Your task to perform on an android device: Go to Maps Image 0: 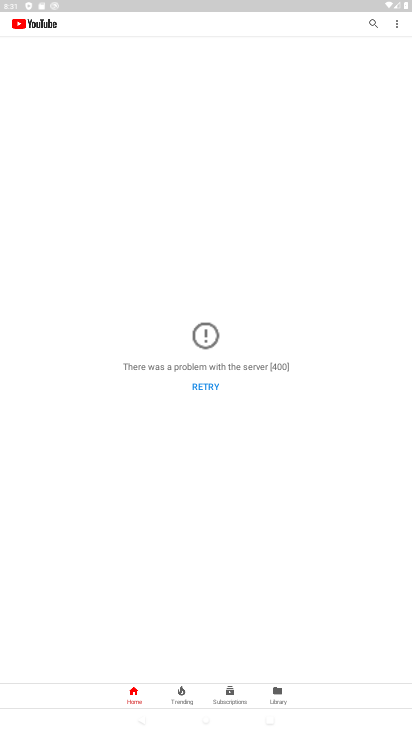
Step 0: press back button
Your task to perform on an android device: Go to Maps Image 1: 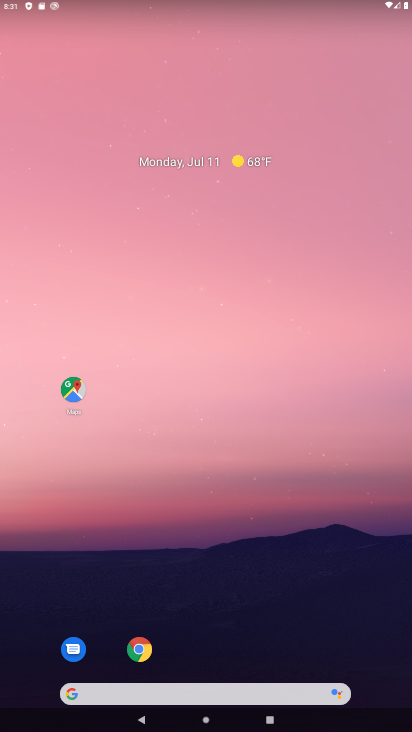
Step 1: drag from (239, 657) to (231, 194)
Your task to perform on an android device: Go to Maps Image 2: 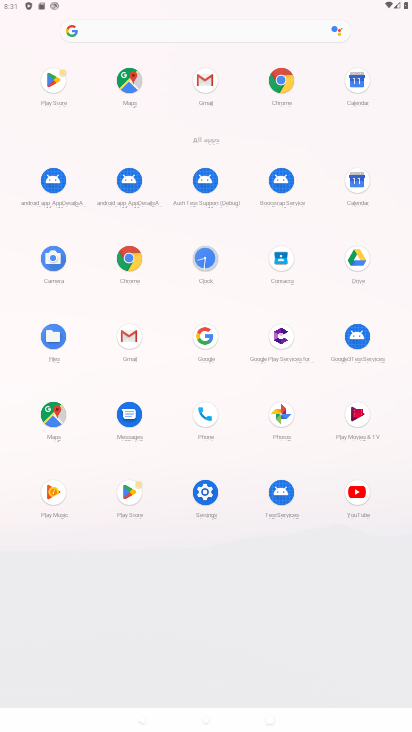
Step 2: click (57, 420)
Your task to perform on an android device: Go to Maps Image 3: 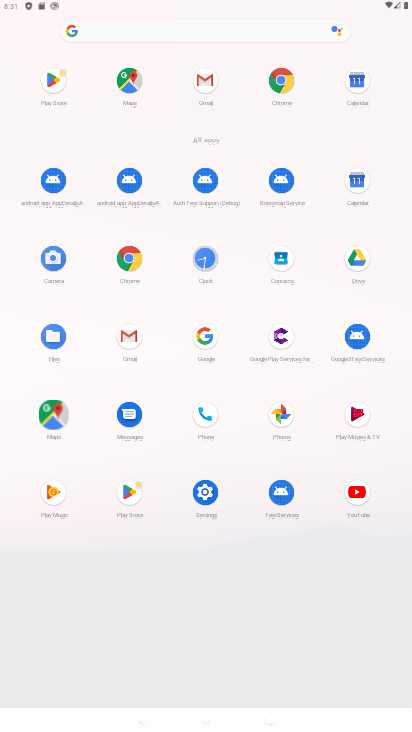
Step 3: click (55, 412)
Your task to perform on an android device: Go to Maps Image 4: 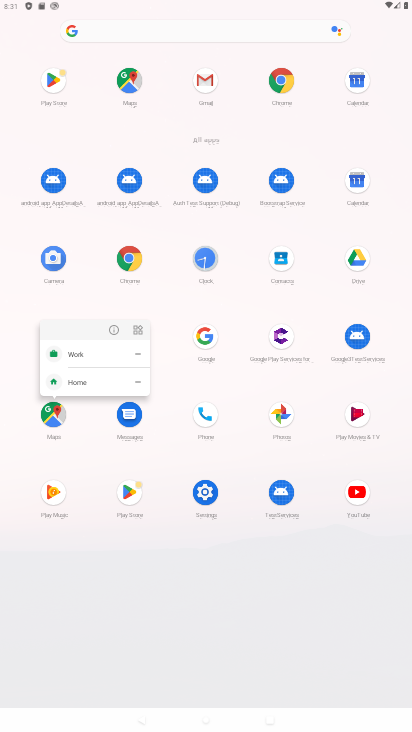
Step 4: click (55, 412)
Your task to perform on an android device: Go to Maps Image 5: 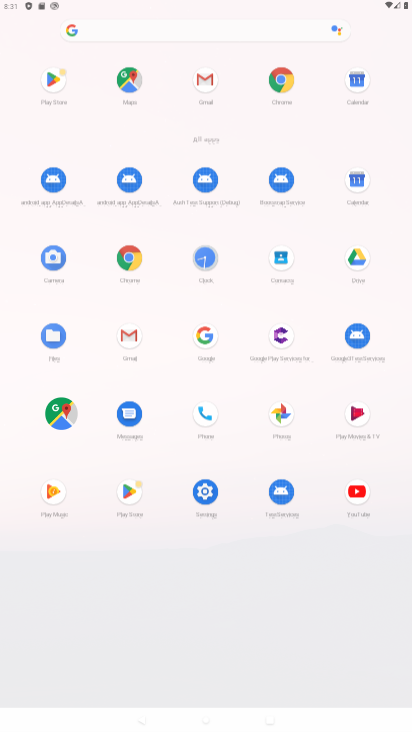
Step 5: click (55, 411)
Your task to perform on an android device: Go to Maps Image 6: 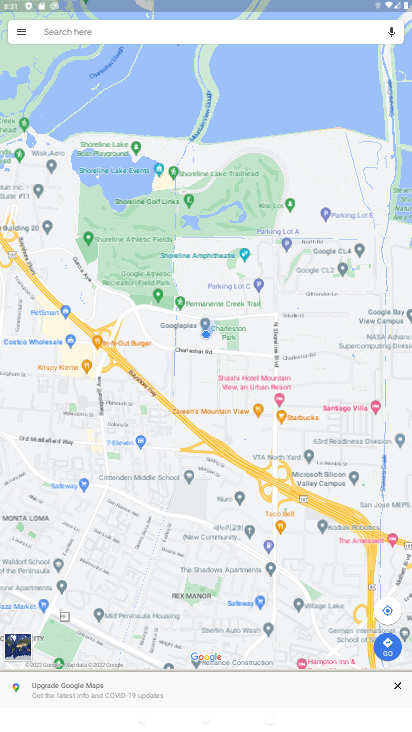
Step 6: task complete